Your task to perform on an android device: set the timer Image 0: 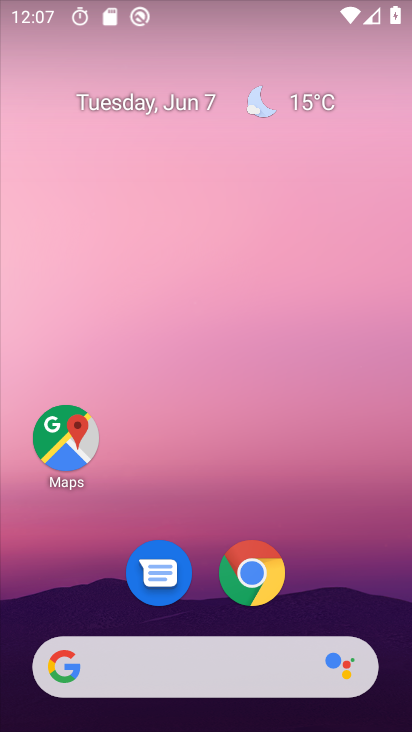
Step 0: drag from (207, 618) to (163, 121)
Your task to perform on an android device: set the timer Image 1: 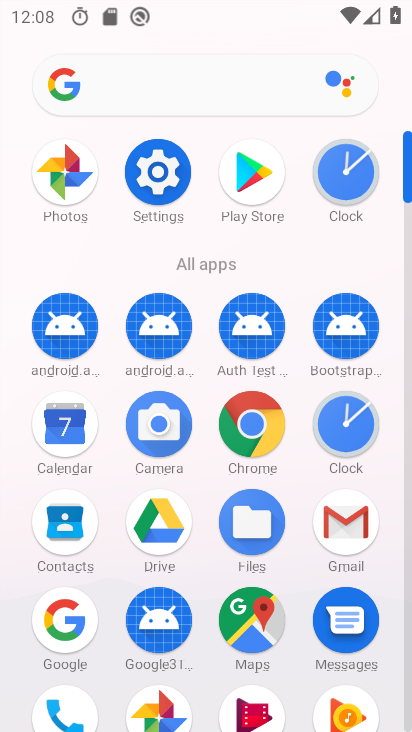
Step 1: click (322, 180)
Your task to perform on an android device: set the timer Image 2: 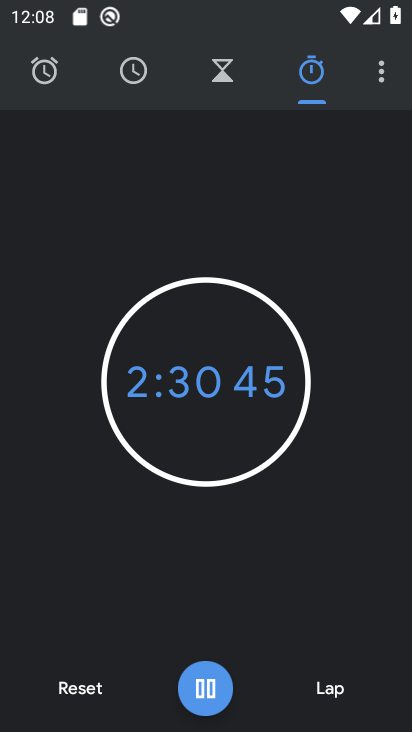
Step 2: click (225, 56)
Your task to perform on an android device: set the timer Image 3: 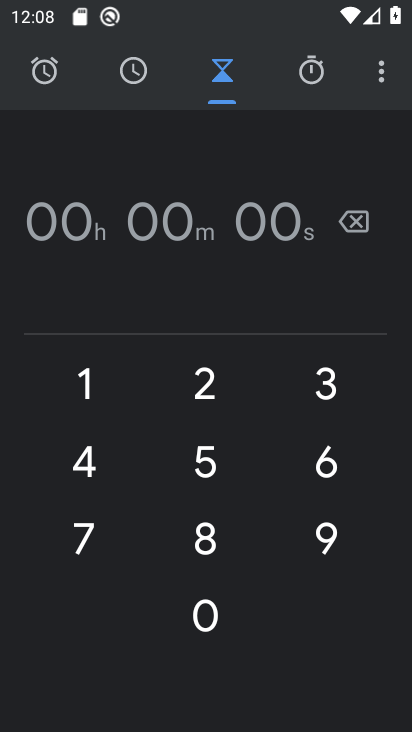
Step 3: click (278, 232)
Your task to perform on an android device: set the timer Image 4: 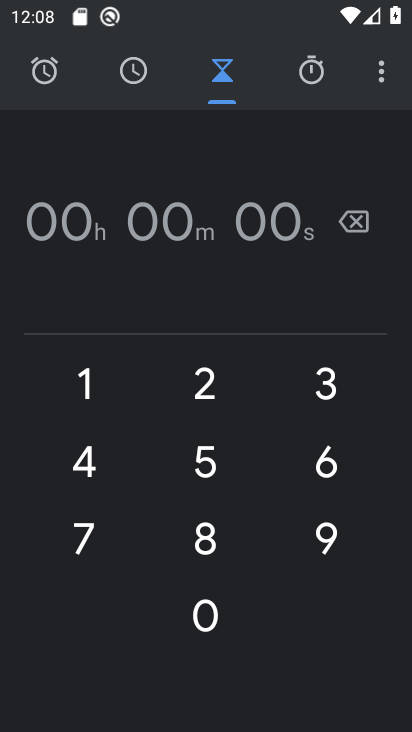
Step 4: type "12"
Your task to perform on an android device: set the timer Image 5: 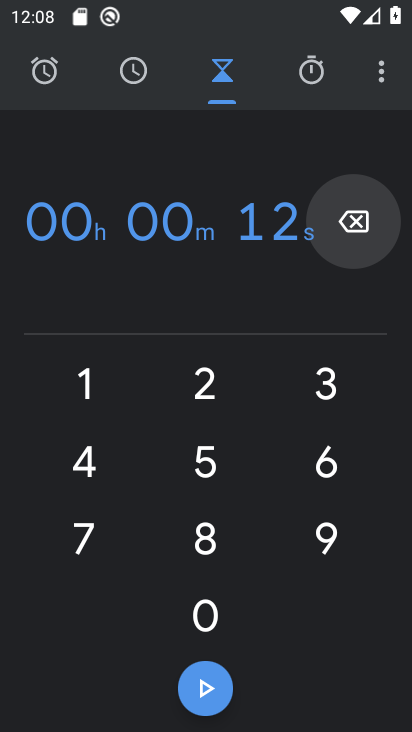
Step 5: task complete